Your task to perform on an android device: Is it going to rain tomorrow? Image 0: 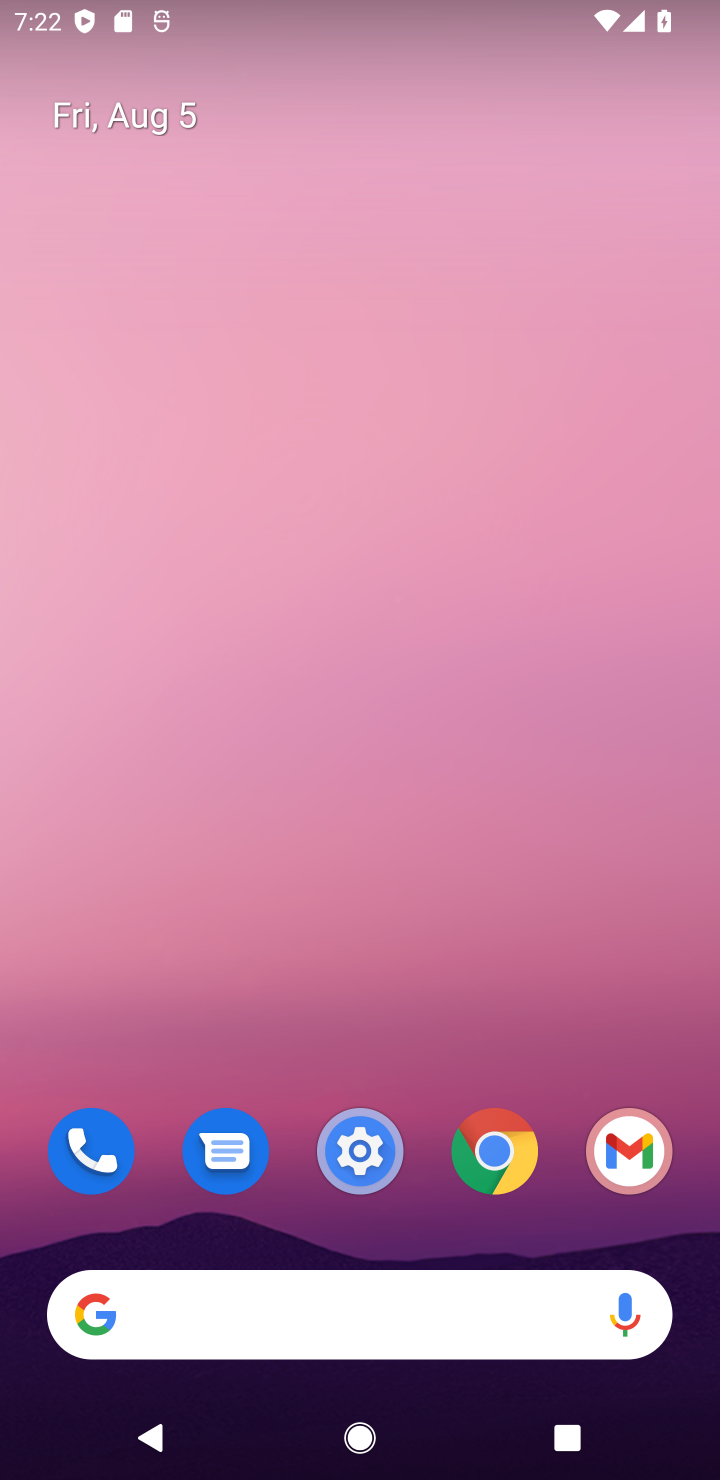
Step 0: click (355, 1319)
Your task to perform on an android device: Is it going to rain tomorrow? Image 1: 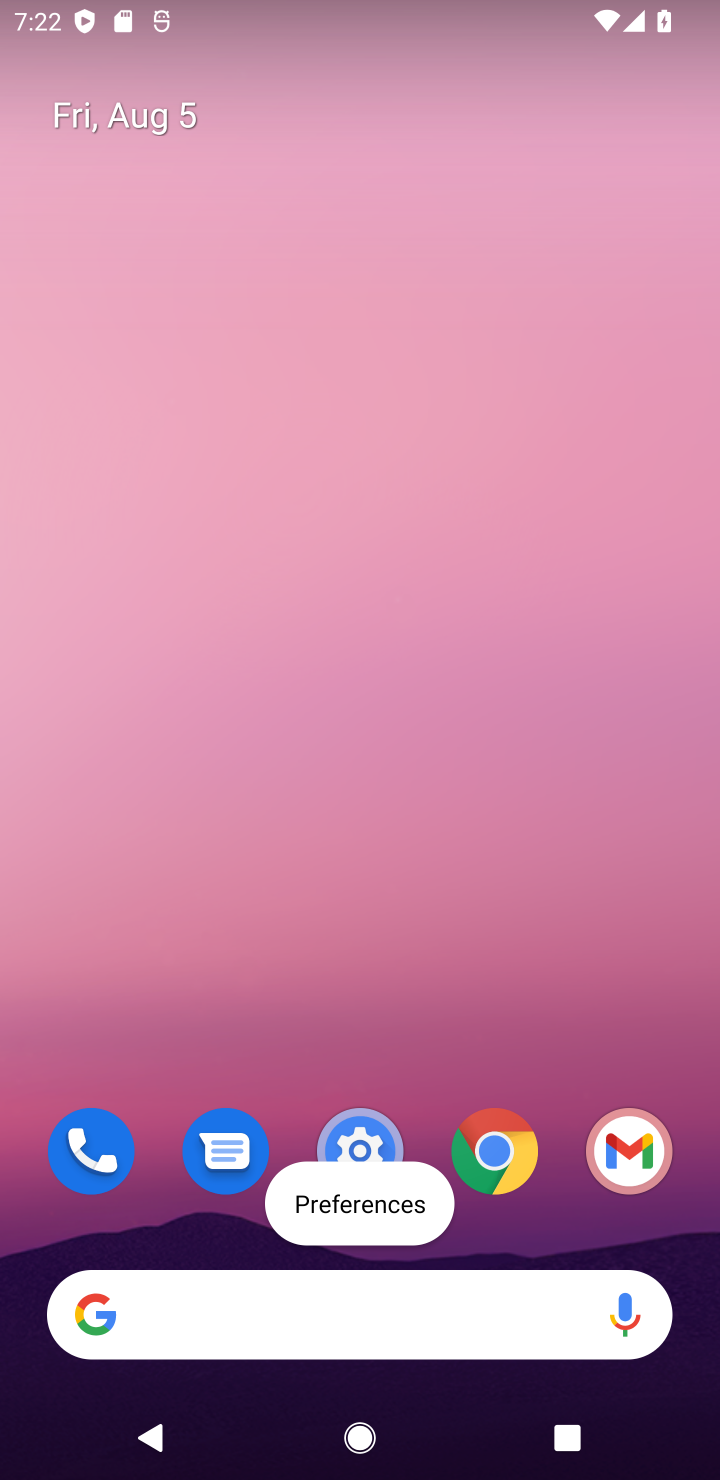
Step 1: click (380, 1330)
Your task to perform on an android device: Is it going to rain tomorrow? Image 2: 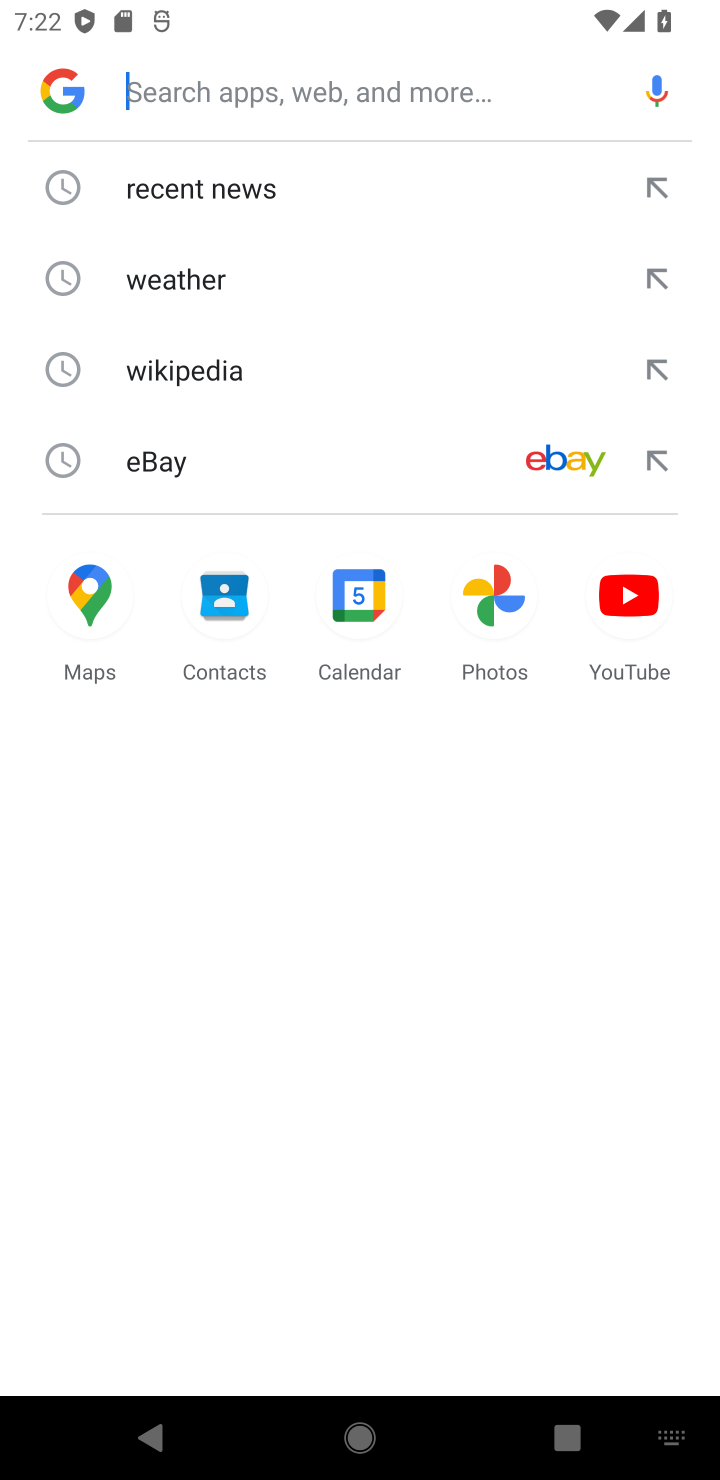
Step 2: click (94, 275)
Your task to perform on an android device: Is it going to rain tomorrow? Image 3: 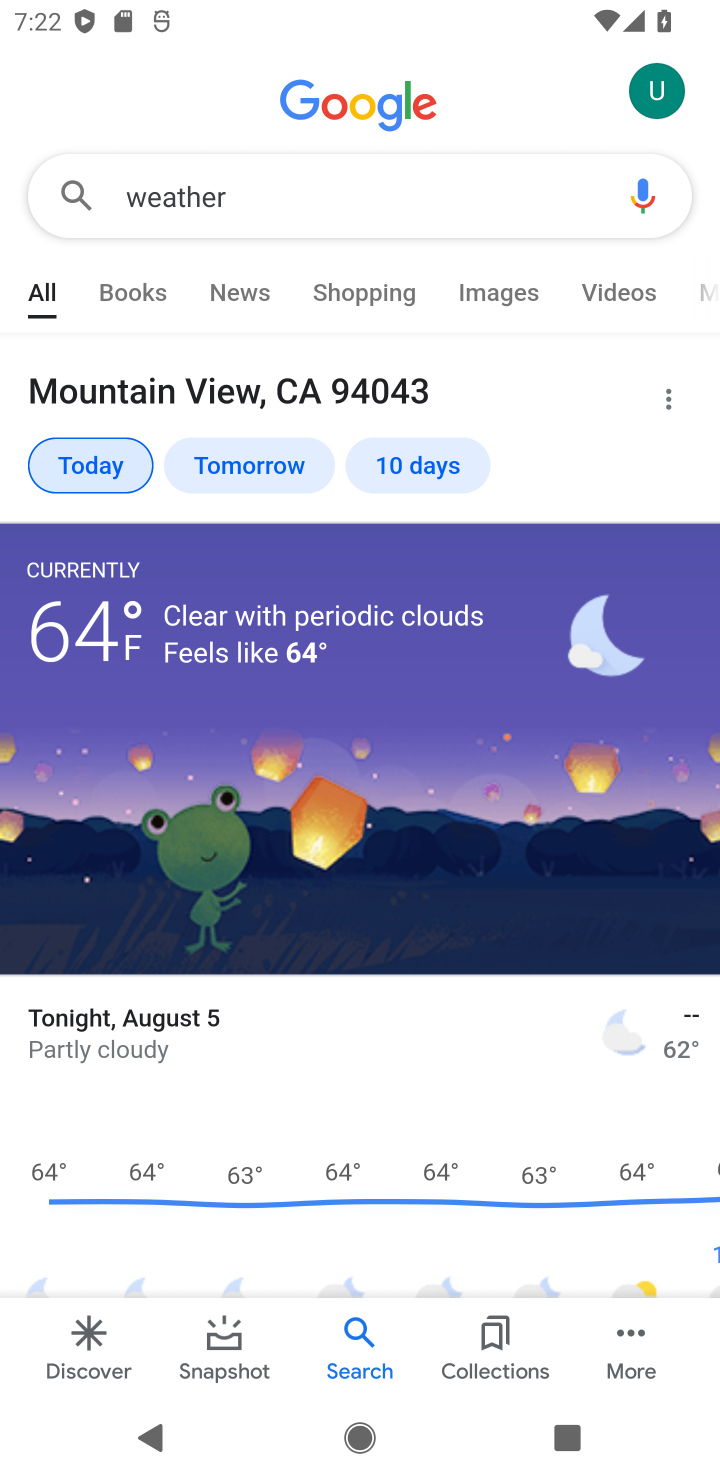
Step 3: click (274, 455)
Your task to perform on an android device: Is it going to rain tomorrow? Image 4: 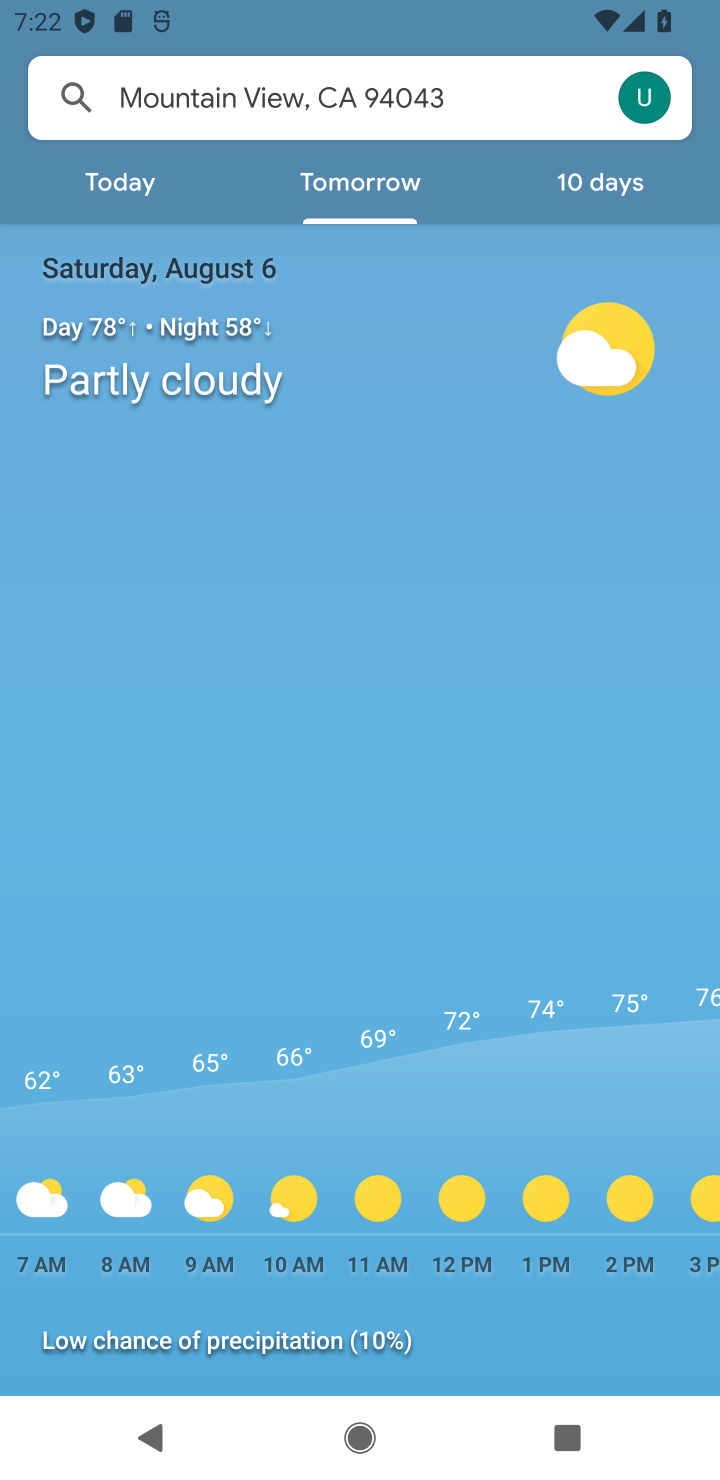
Step 4: task complete